Your task to perform on an android device: clear all cookies in the chrome app Image 0: 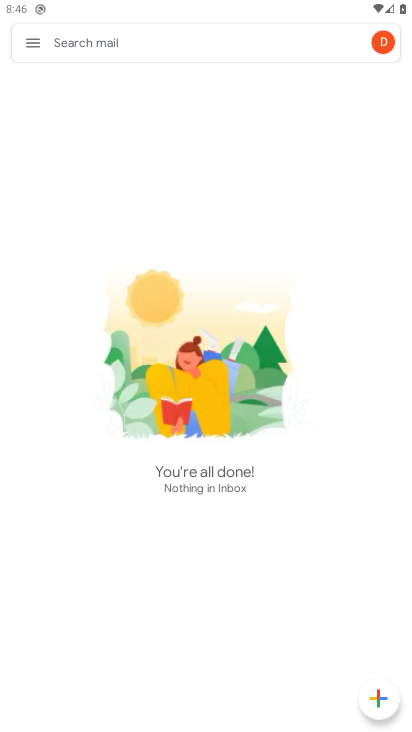
Step 0: press home button
Your task to perform on an android device: clear all cookies in the chrome app Image 1: 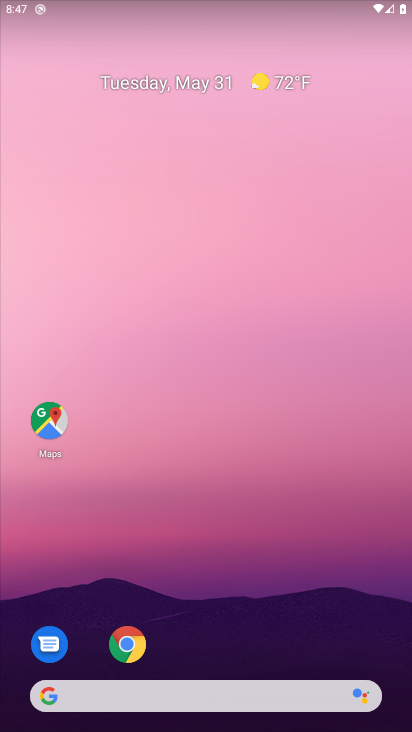
Step 1: click (127, 636)
Your task to perform on an android device: clear all cookies in the chrome app Image 2: 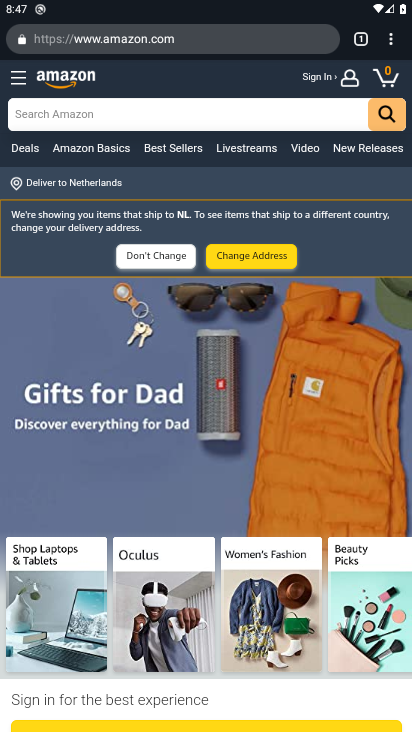
Step 2: click (391, 34)
Your task to perform on an android device: clear all cookies in the chrome app Image 3: 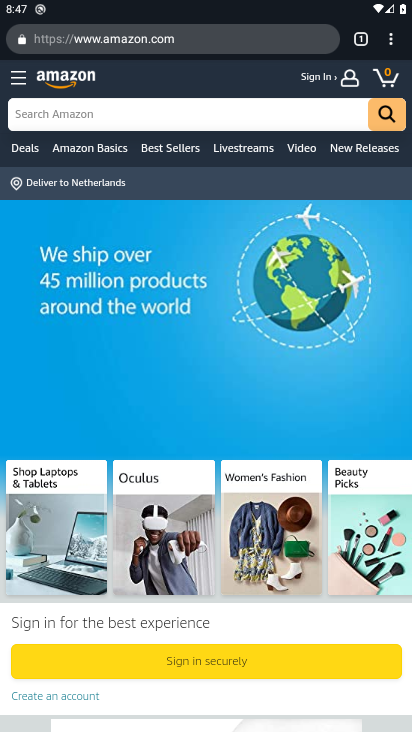
Step 3: click (391, 34)
Your task to perform on an android device: clear all cookies in the chrome app Image 4: 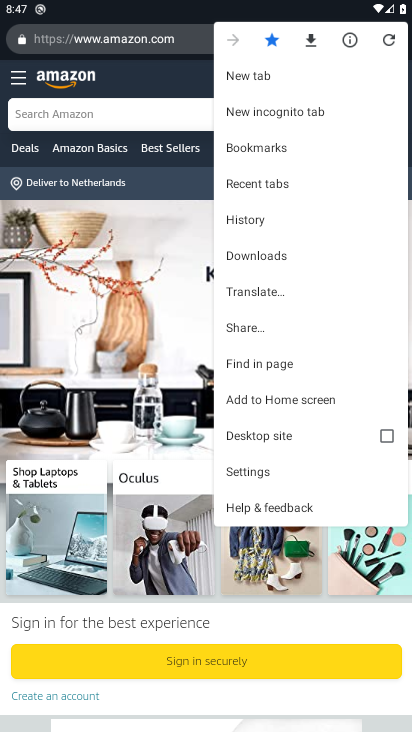
Step 4: click (270, 212)
Your task to perform on an android device: clear all cookies in the chrome app Image 5: 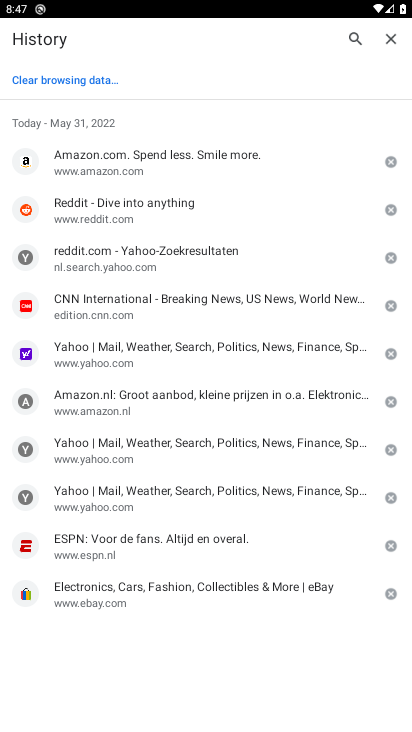
Step 5: click (75, 65)
Your task to perform on an android device: clear all cookies in the chrome app Image 6: 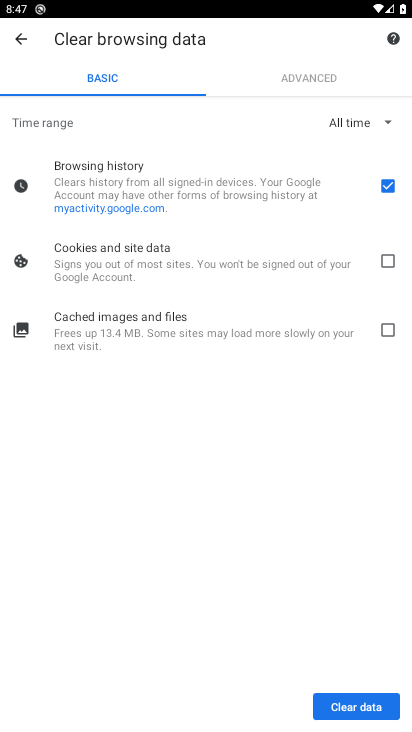
Step 6: click (379, 186)
Your task to perform on an android device: clear all cookies in the chrome app Image 7: 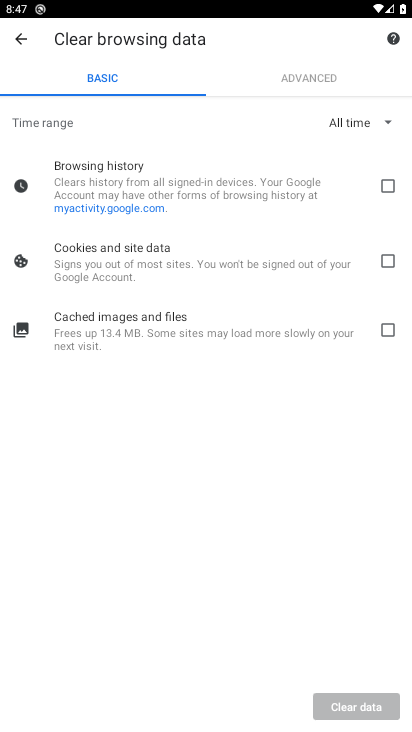
Step 7: click (389, 254)
Your task to perform on an android device: clear all cookies in the chrome app Image 8: 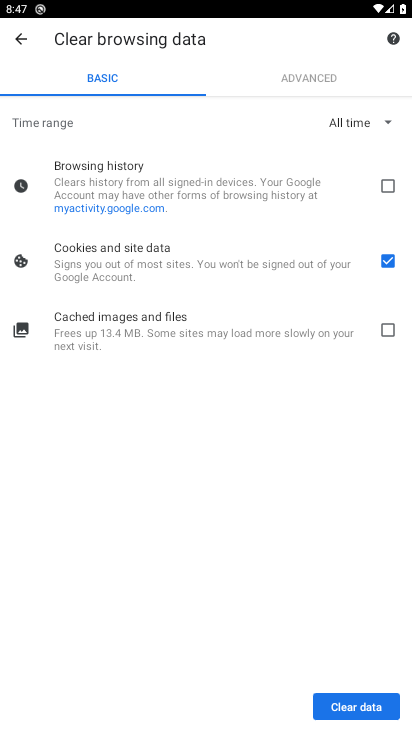
Step 8: click (369, 706)
Your task to perform on an android device: clear all cookies in the chrome app Image 9: 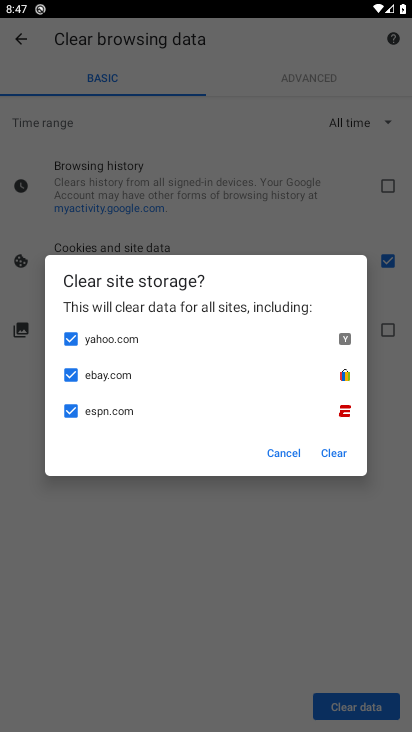
Step 9: click (329, 444)
Your task to perform on an android device: clear all cookies in the chrome app Image 10: 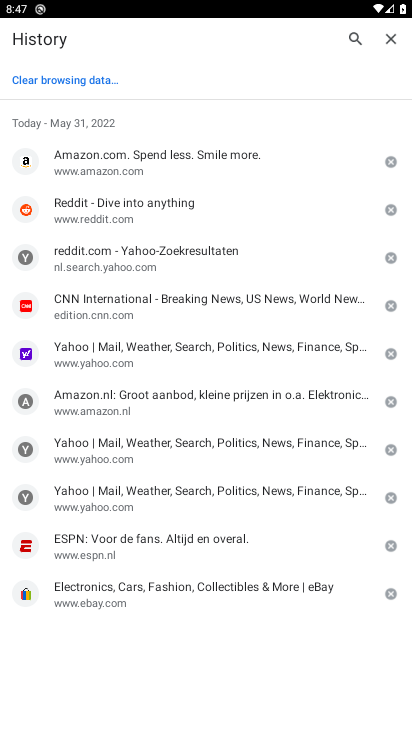
Step 10: task complete